Your task to perform on an android device: make emails show in primary in the gmail app Image 0: 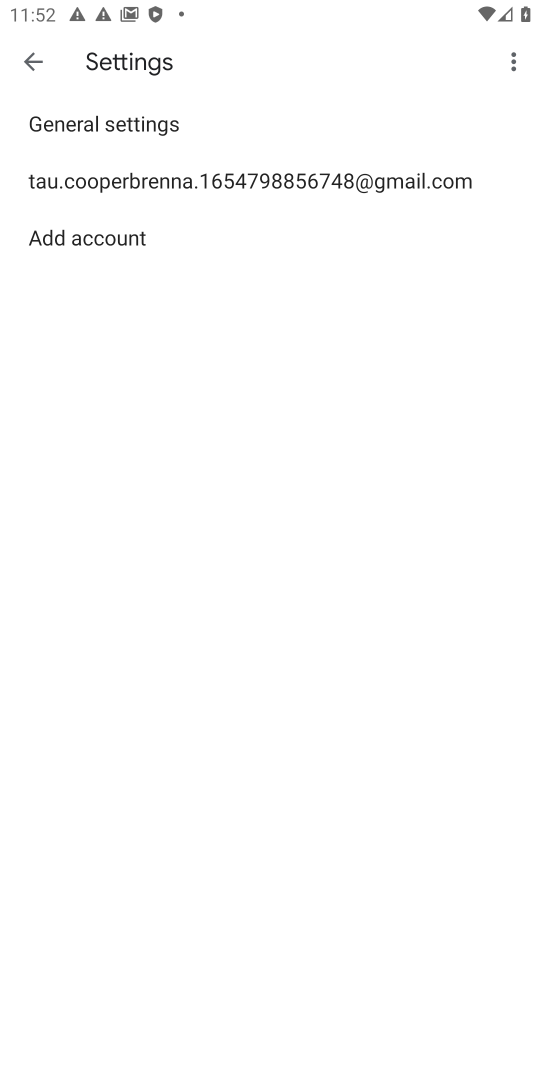
Step 0: click (89, 186)
Your task to perform on an android device: make emails show in primary in the gmail app Image 1: 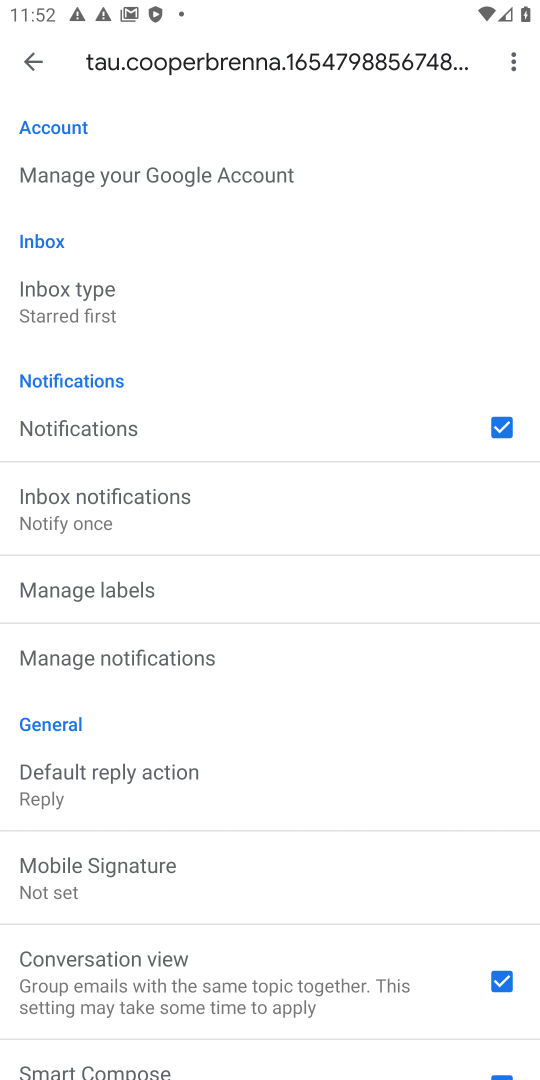
Step 1: task complete